Your task to perform on an android device: delete location history Image 0: 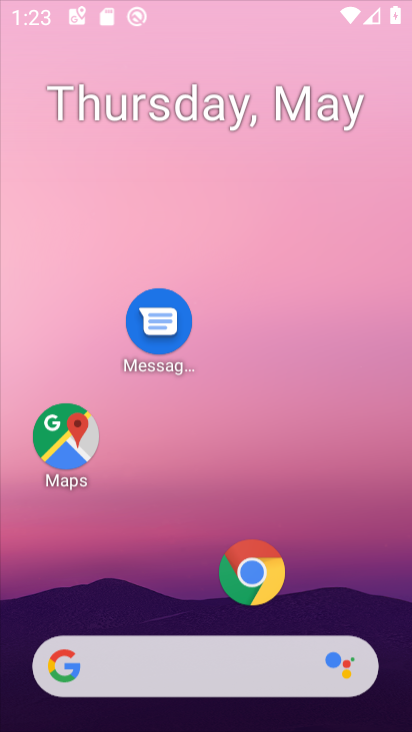
Step 0: click (235, 310)
Your task to perform on an android device: delete location history Image 1: 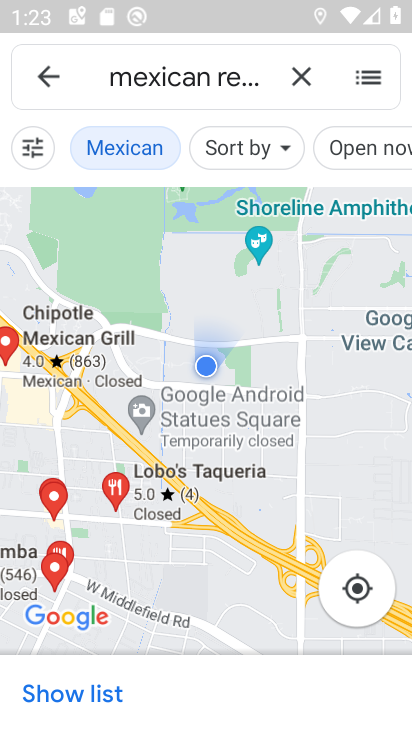
Step 1: drag from (243, 617) to (243, 181)
Your task to perform on an android device: delete location history Image 2: 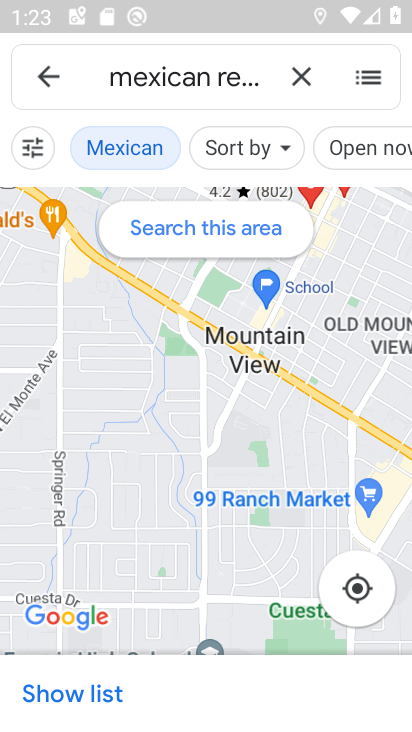
Step 2: press home button
Your task to perform on an android device: delete location history Image 3: 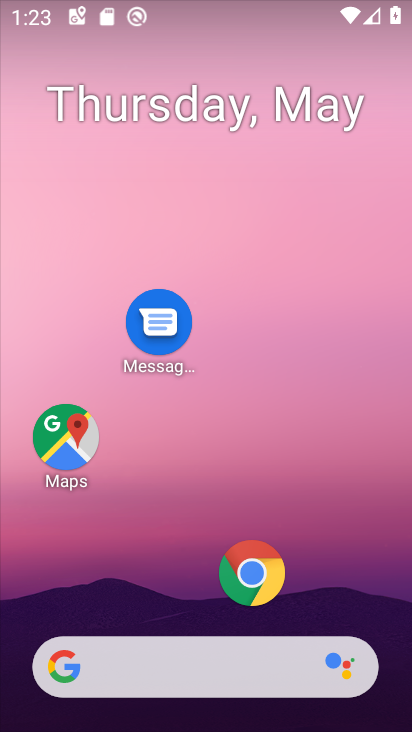
Step 3: drag from (199, 599) to (199, 93)
Your task to perform on an android device: delete location history Image 4: 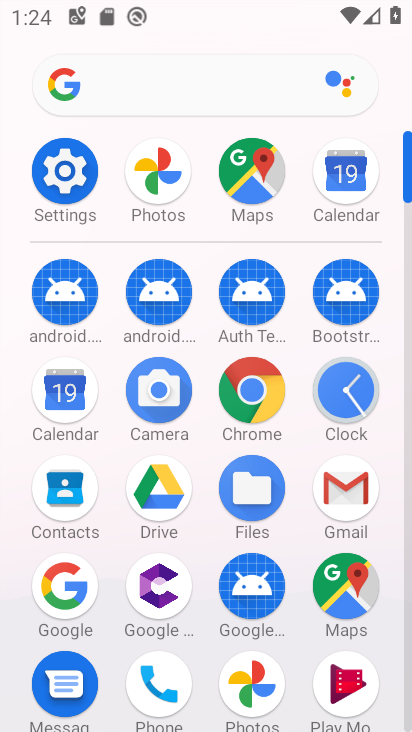
Step 4: click (65, 183)
Your task to perform on an android device: delete location history Image 5: 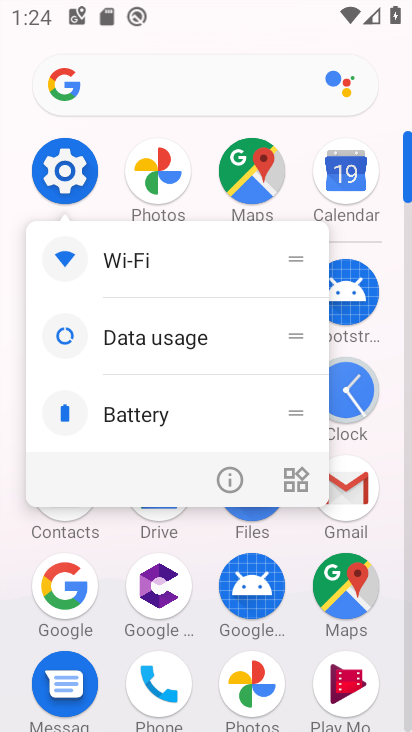
Step 5: click (237, 476)
Your task to perform on an android device: delete location history Image 6: 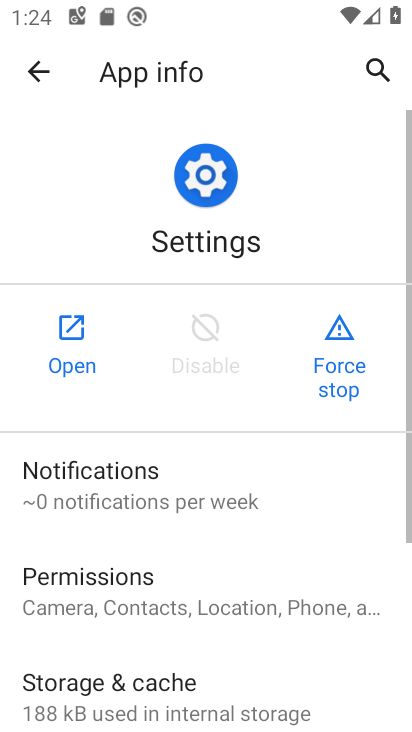
Step 6: click (53, 357)
Your task to perform on an android device: delete location history Image 7: 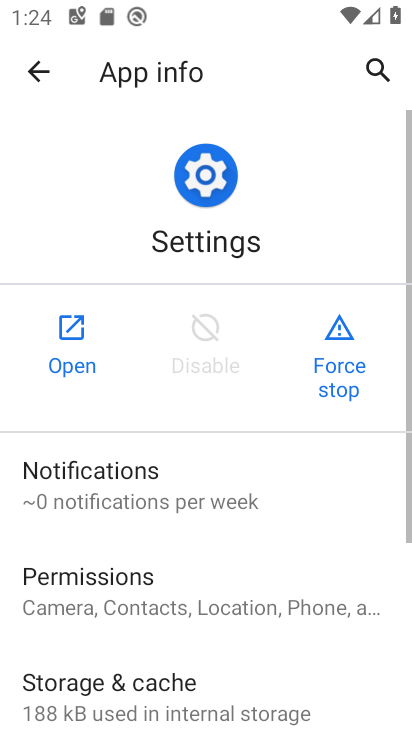
Step 7: click (53, 357)
Your task to perform on an android device: delete location history Image 8: 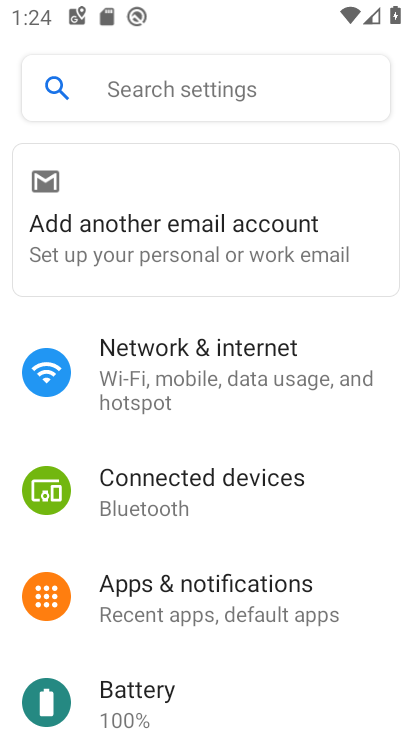
Step 8: drag from (194, 682) to (234, 182)
Your task to perform on an android device: delete location history Image 9: 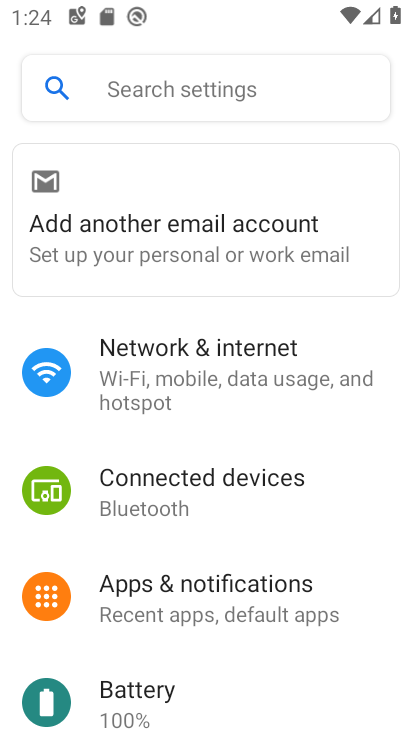
Step 9: drag from (213, 656) to (287, 179)
Your task to perform on an android device: delete location history Image 10: 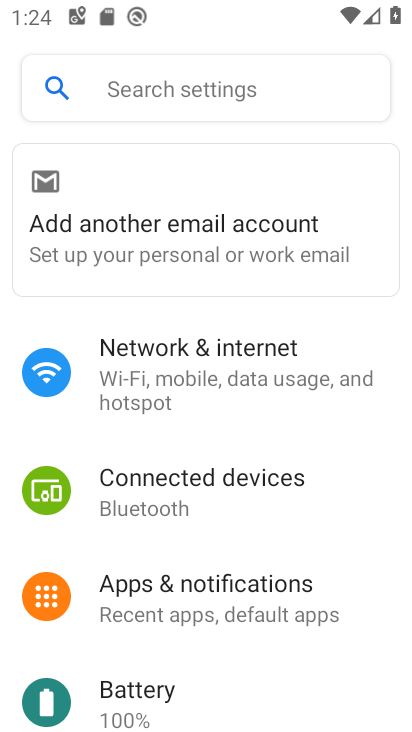
Step 10: drag from (235, 574) to (291, 117)
Your task to perform on an android device: delete location history Image 11: 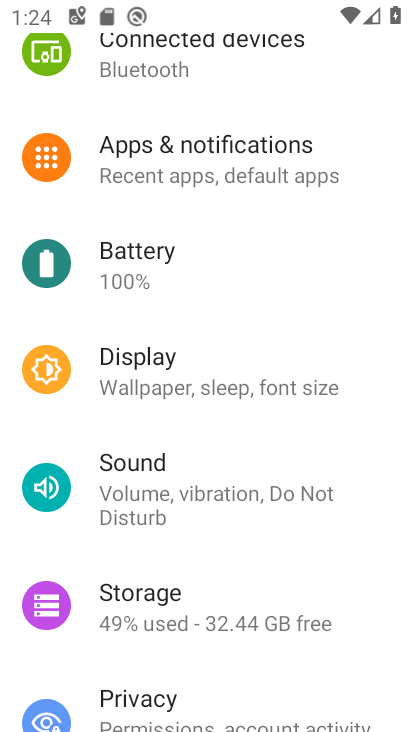
Step 11: drag from (245, 668) to (243, 201)
Your task to perform on an android device: delete location history Image 12: 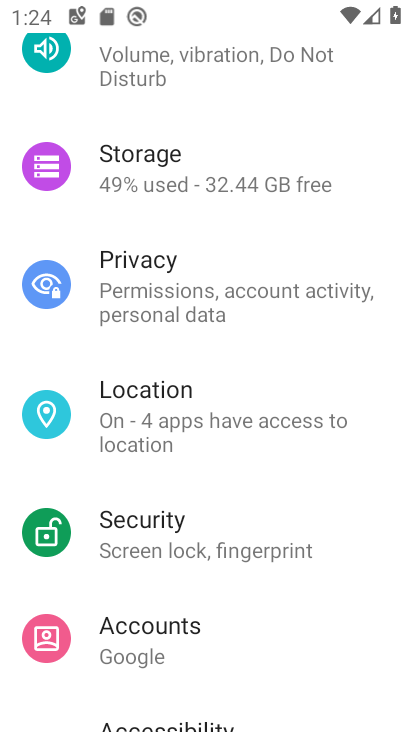
Step 12: drag from (124, 566) to (181, 262)
Your task to perform on an android device: delete location history Image 13: 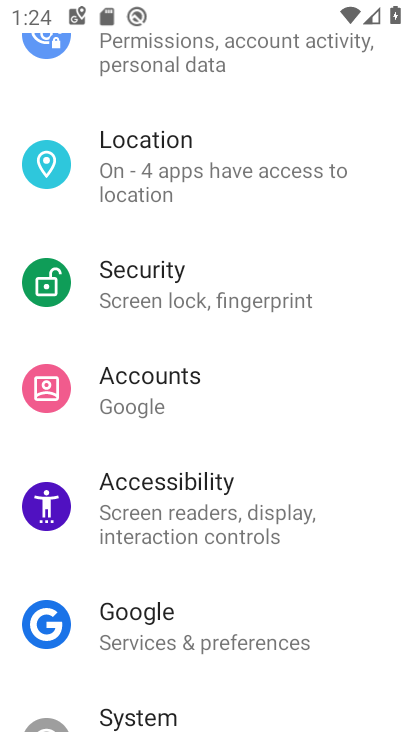
Step 13: drag from (189, 199) to (265, 436)
Your task to perform on an android device: delete location history Image 14: 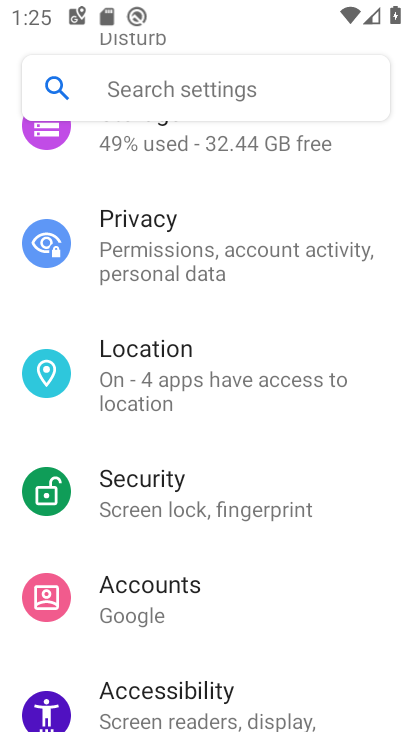
Step 14: click (207, 389)
Your task to perform on an android device: delete location history Image 15: 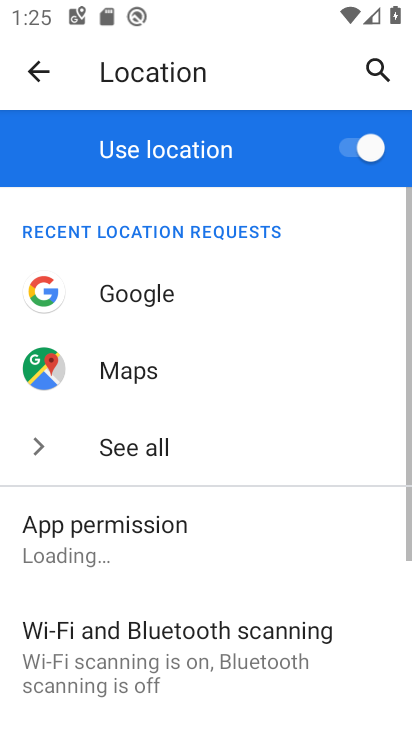
Step 15: drag from (202, 651) to (249, 330)
Your task to perform on an android device: delete location history Image 16: 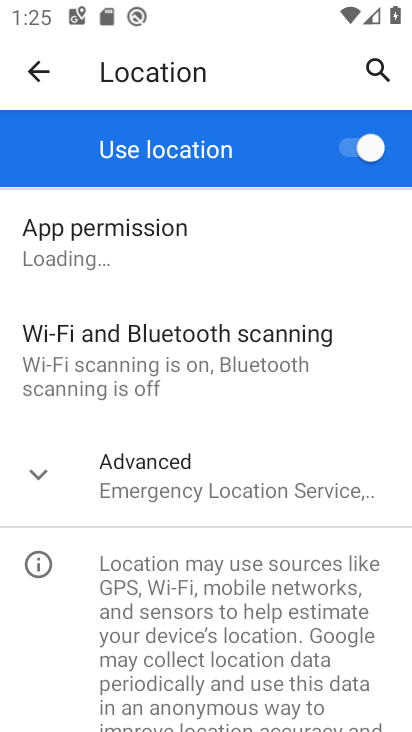
Step 16: click (137, 471)
Your task to perform on an android device: delete location history Image 17: 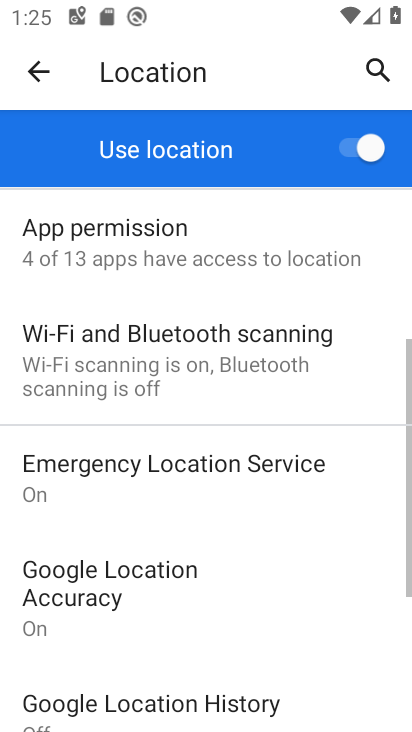
Step 17: drag from (191, 645) to (215, 259)
Your task to perform on an android device: delete location history Image 18: 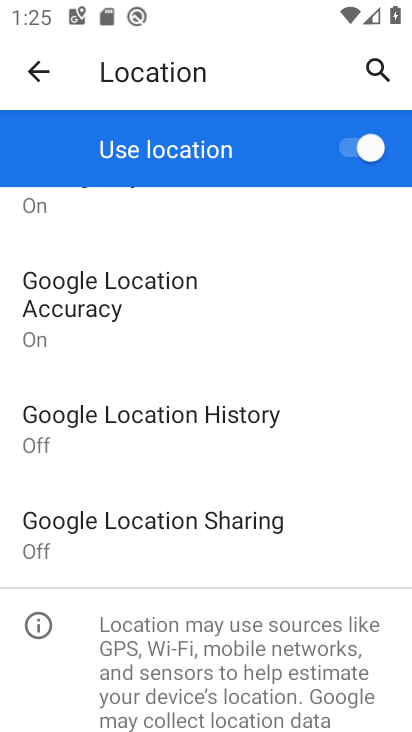
Step 18: click (167, 439)
Your task to perform on an android device: delete location history Image 19: 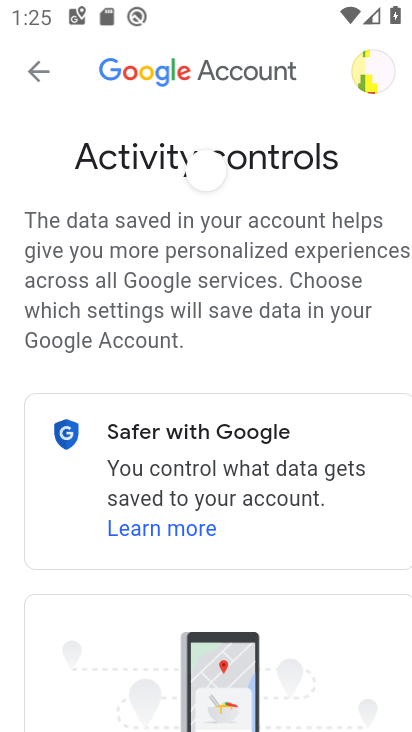
Step 19: drag from (316, 584) to (342, 273)
Your task to perform on an android device: delete location history Image 20: 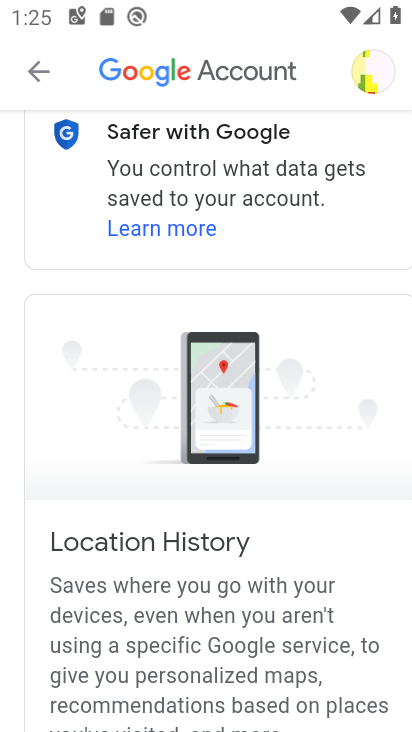
Step 20: drag from (302, 604) to (277, 218)
Your task to perform on an android device: delete location history Image 21: 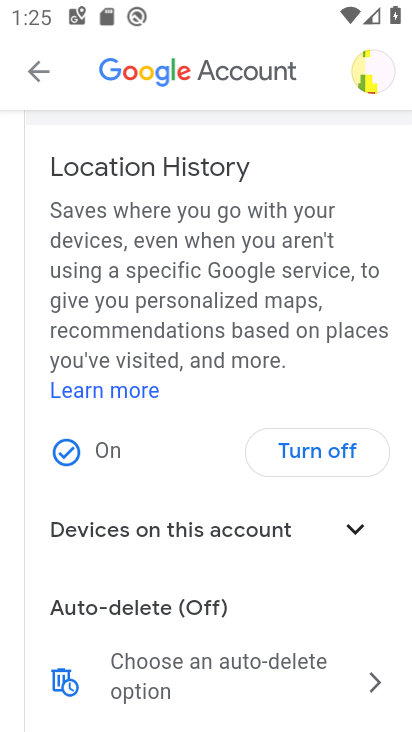
Step 21: drag from (268, 677) to (295, 191)
Your task to perform on an android device: delete location history Image 22: 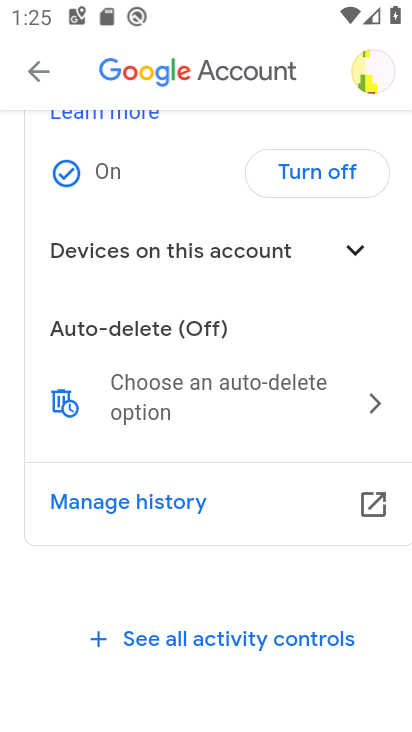
Step 22: drag from (227, 614) to (277, 247)
Your task to perform on an android device: delete location history Image 23: 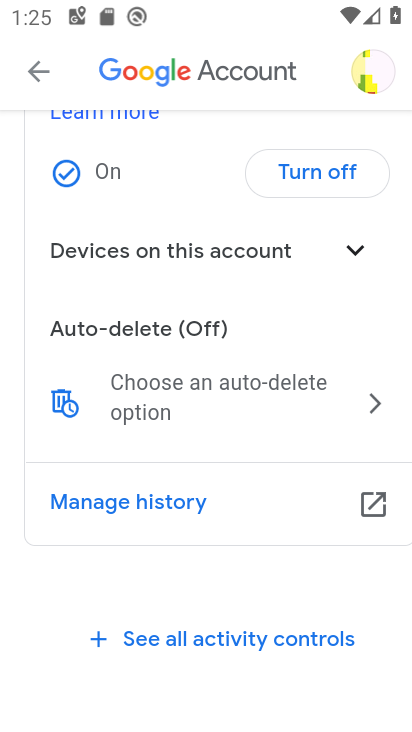
Step 23: click (61, 400)
Your task to perform on an android device: delete location history Image 24: 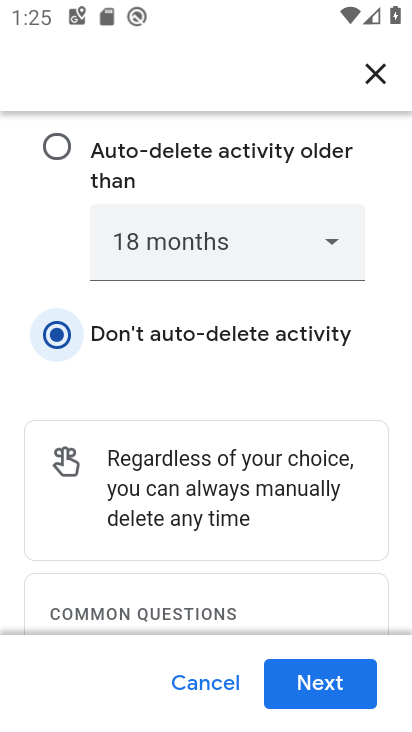
Step 24: click (309, 681)
Your task to perform on an android device: delete location history Image 25: 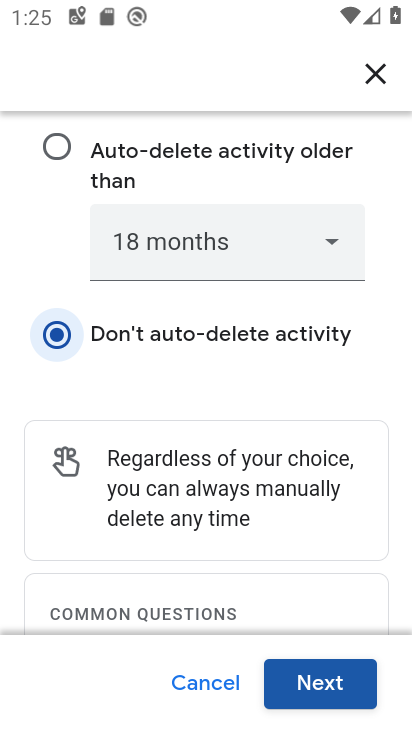
Step 25: click (294, 685)
Your task to perform on an android device: delete location history Image 26: 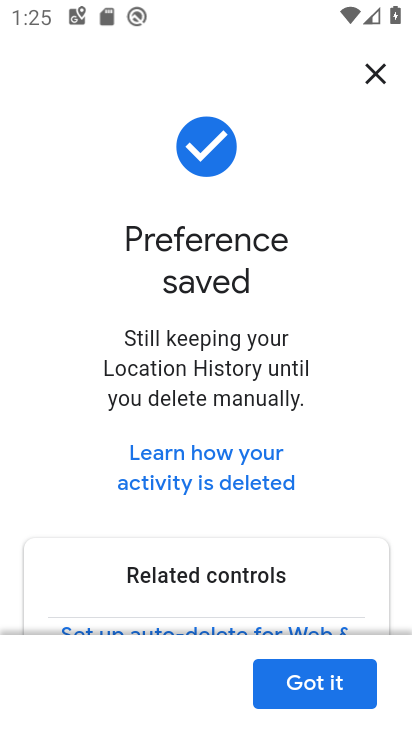
Step 26: click (300, 687)
Your task to perform on an android device: delete location history Image 27: 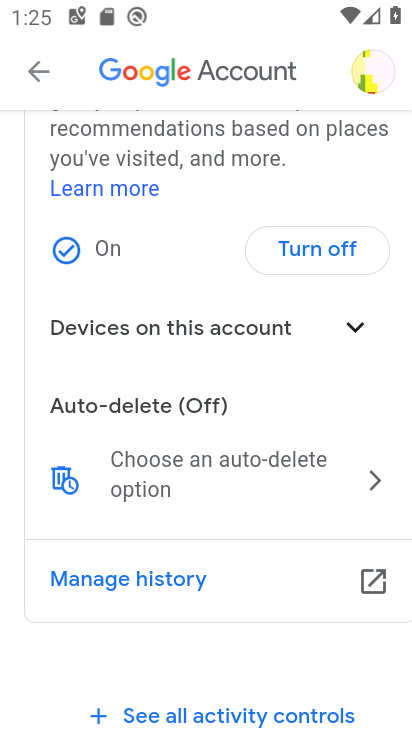
Step 27: task complete